Your task to perform on an android device: search for starred emails in the gmail app Image 0: 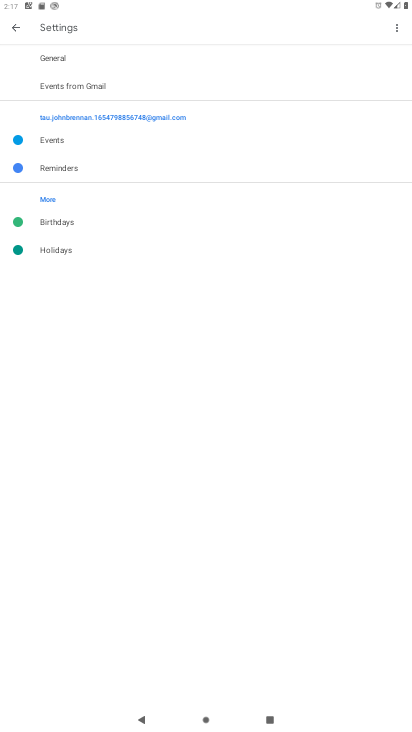
Step 0: press home button
Your task to perform on an android device: search for starred emails in the gmail app Image 1: 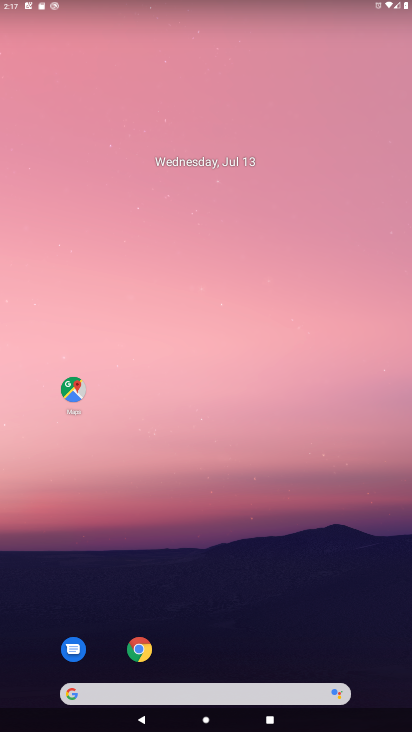
Step 1: drag from (280, 600) to (297, 77)
Your task to perform on an android device: search for starred emails in the gmail app Image 2: 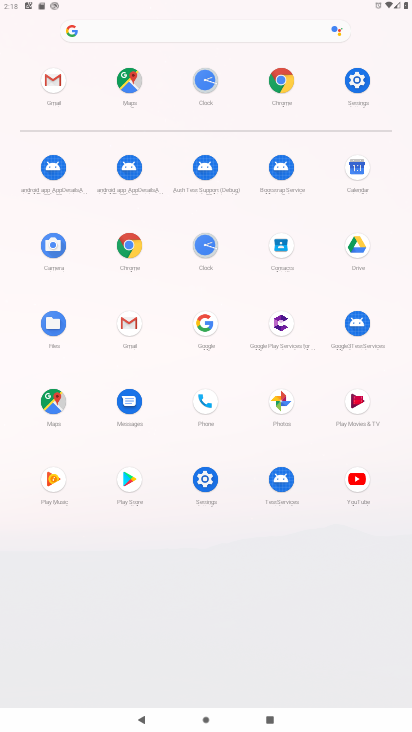
Step 2: click (122, 311)
Your task to perform on an android device: search for starred emails in the gmail app Image 3: 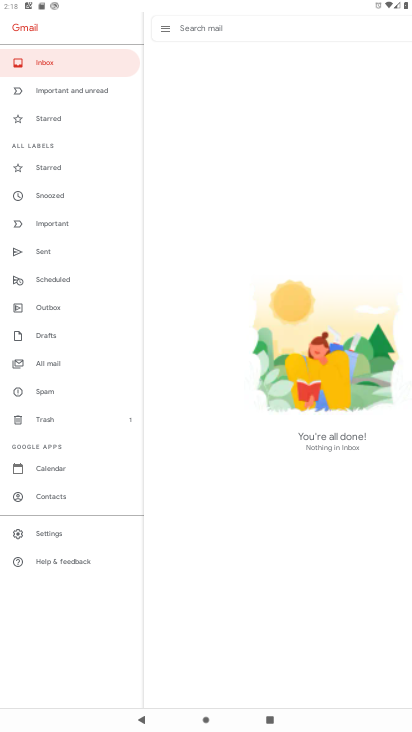
Step 3: click (52, 163)
Your task to perform on an android device: search for starred emails in the gmail app Image 4: 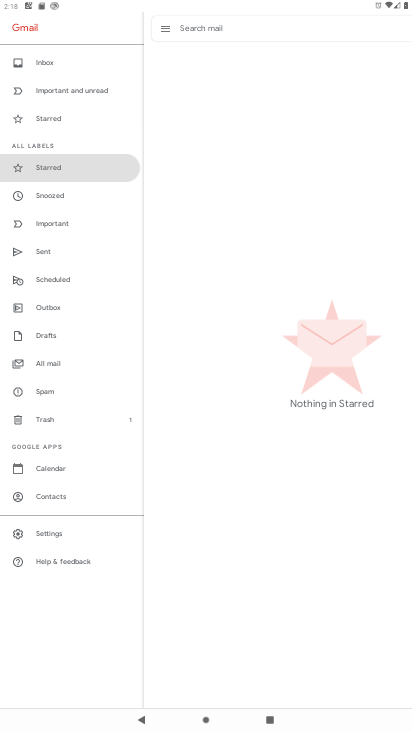
Step 4: task complete